Your task to perform on an android device: Open Youtube and go to "Your channel" Image 0: 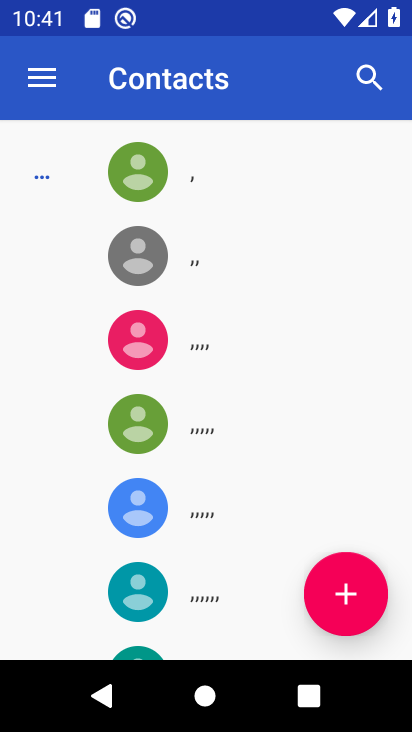
Step 0: press home button
Your task to perform on an android device: Open Youtube and go to "Your channel" Image 1: 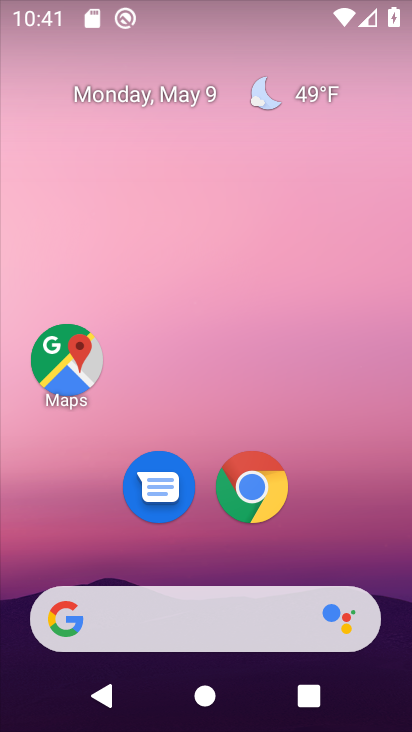
Step 1: drag from (326, 566) to (122, 71)
Your task to perform on an android device: Open Youtube and go to "Your channel" Image 2: 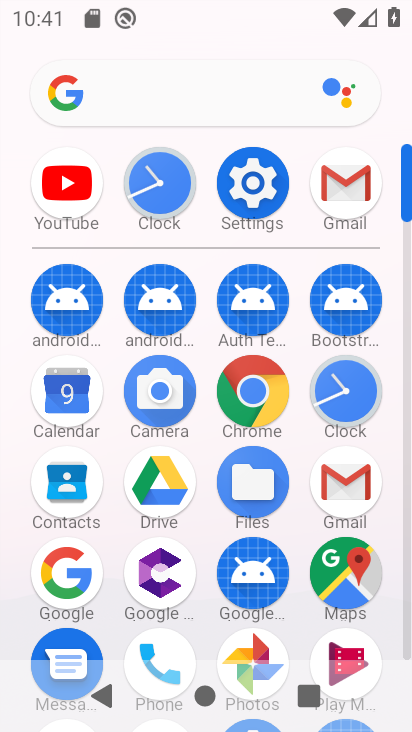
Step 2: click (71, 186)
Your task to perform on an android device: Open Youtube and go to "Your channel" Image 3: 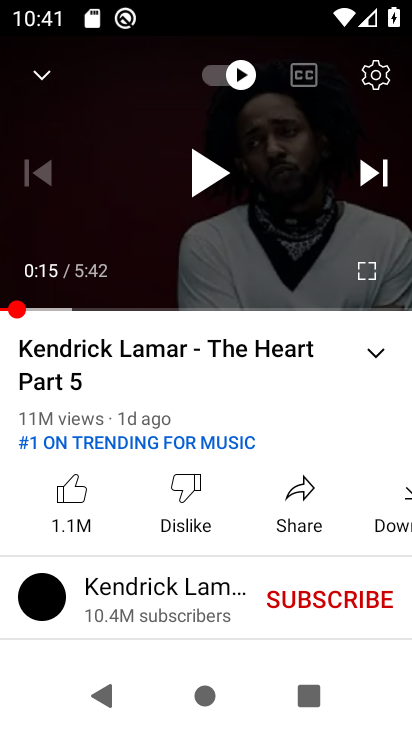
Step 3: press back button
Your task to perform on an android device: Open Youtube and go to "Your channel" Image 4: 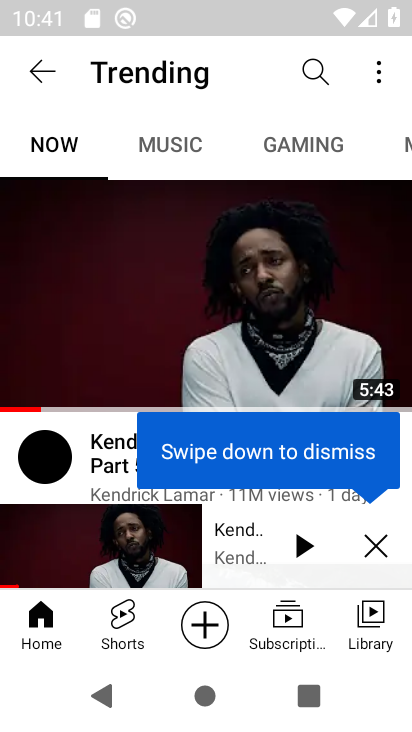
Step 4: press back button
Your task to perform on an android device: Open Youtube and go to "Your channel" Image 5: 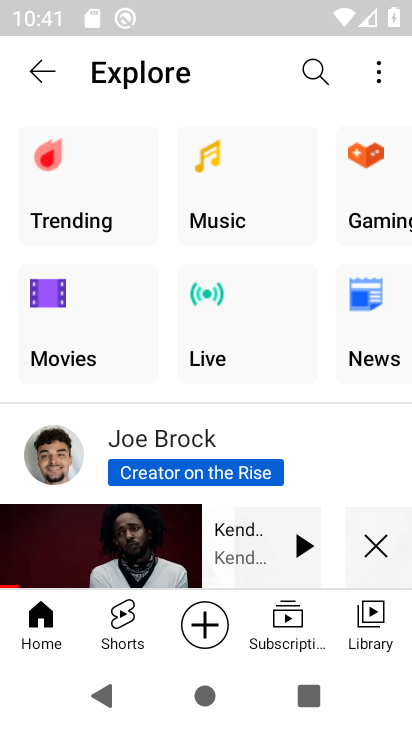
Step 5: press back button
Your task to perform on an android device: Open Youtube and go to "Your channel" Image 6: 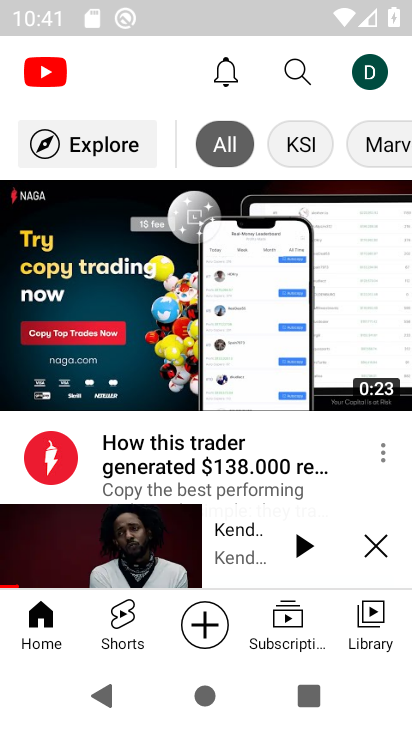
Step 6: click (377, 80)
Your task to perform on an android device: Open Youtube and go to "Your channel" Image 7: 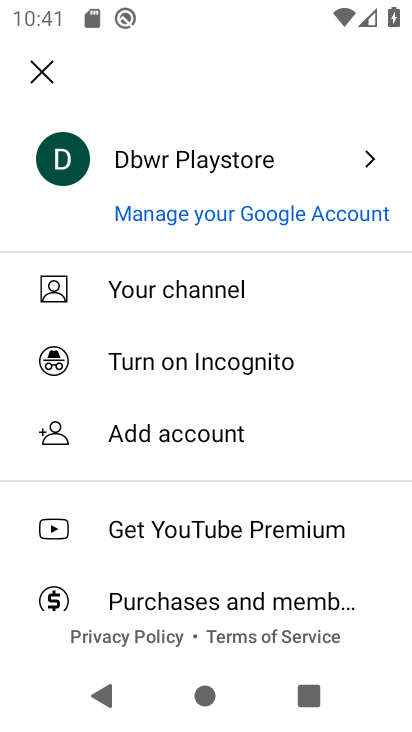
Step 7: click (140, 286)
Your task to perform on an android device: Open Youtube and go to "Your channel" Image 8: 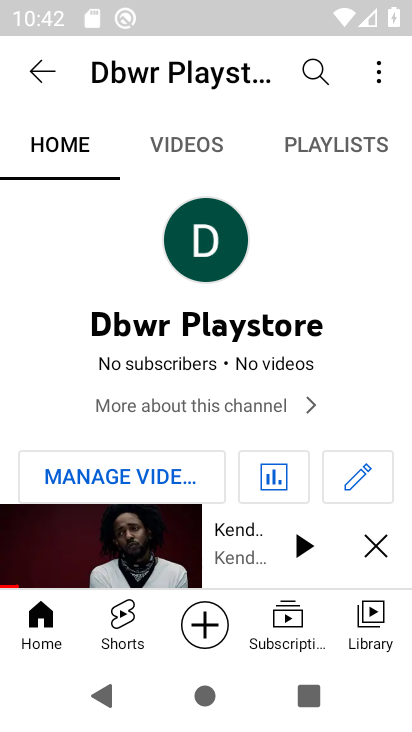
Step 8: task complete